Your task to perform on an android device: change your default location settings in chrome Image 0: 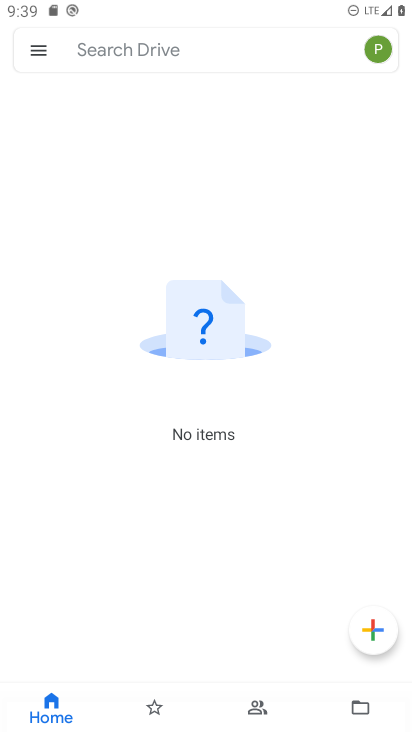
Step 0: press home button
Your task to perform on an android device: change your default location settings in chrome Image 1: 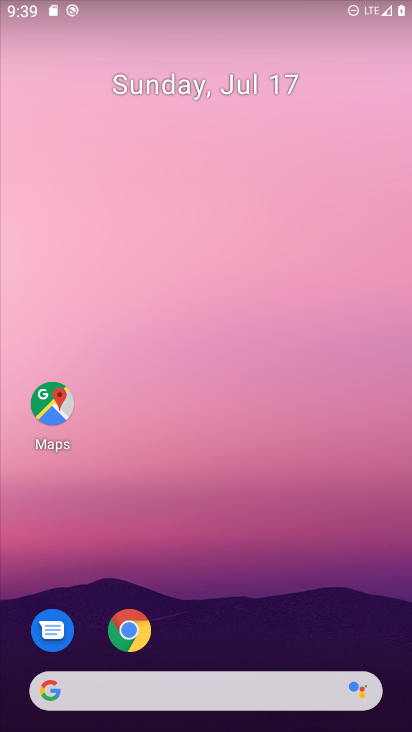
Step 1: drag from (220, 645) to (284, 243)
Your task to perform on an android device: change your default location settings in chrome Image 2: 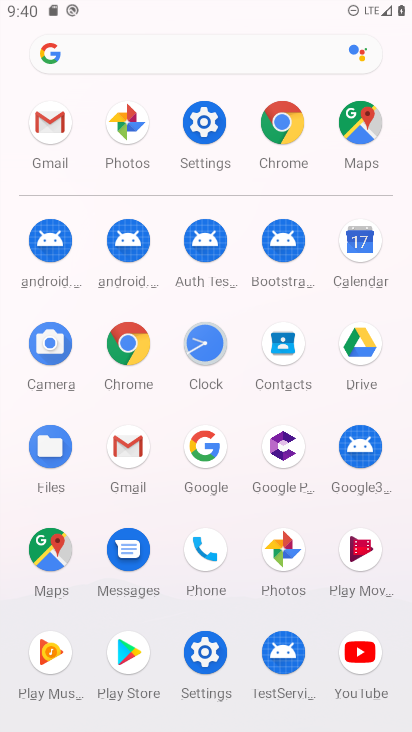
Step 2: click (288, 118)
Your task to perform on an android device: change your default location settings in chrome Image 3: 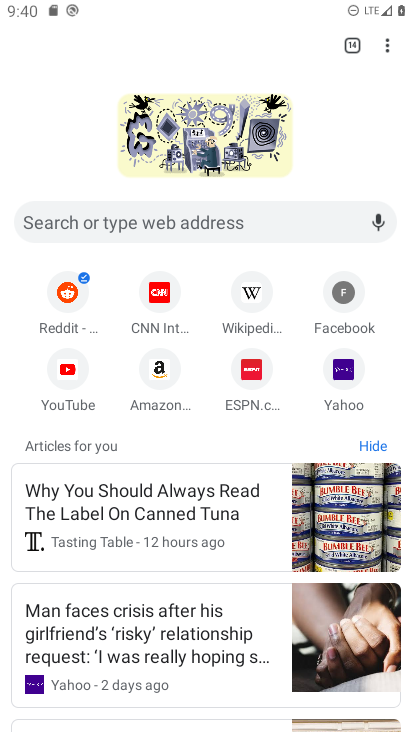
Step 3: click (401, 45)
Your task to perform on an android device: change your default location settings in chrome Image 4: 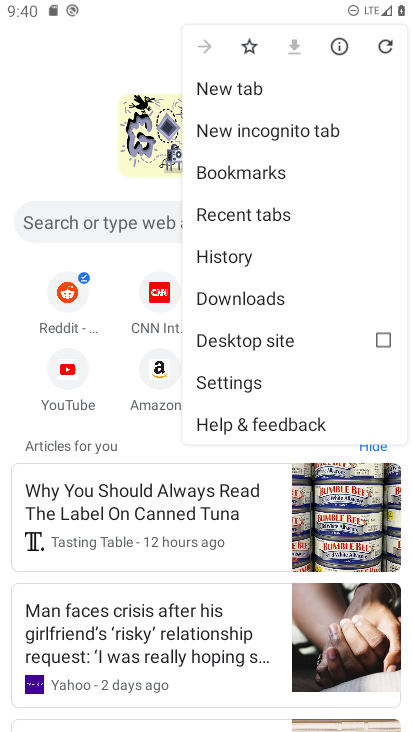
Step 4: click (264, 370)
Your task to perform on an android device: change your default location settings in chrome Image 5: 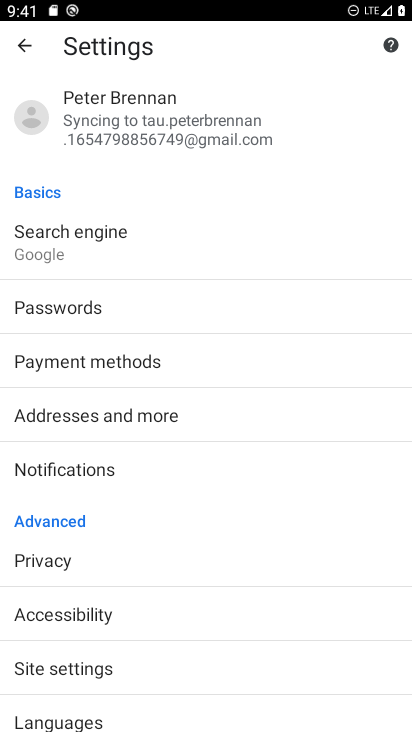
Step 5: drag from (153, 627) to (236, 307)
Your task to perform on an android device: change your default location settings in chrome Image 6: 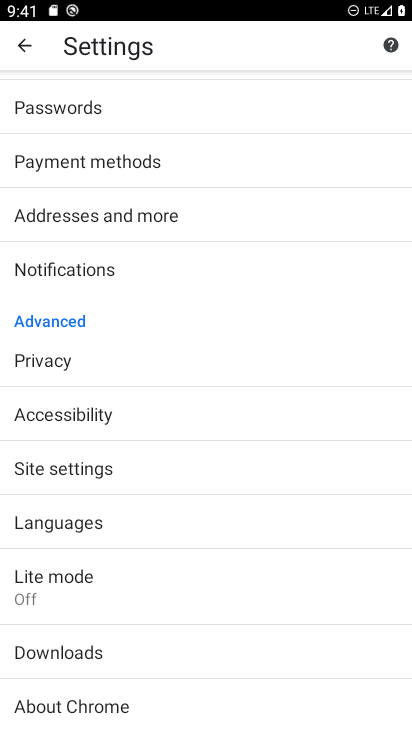
Step 6: click (120, 479)
Your task to perform on an android device: change your default location settings in chrome Image 7: 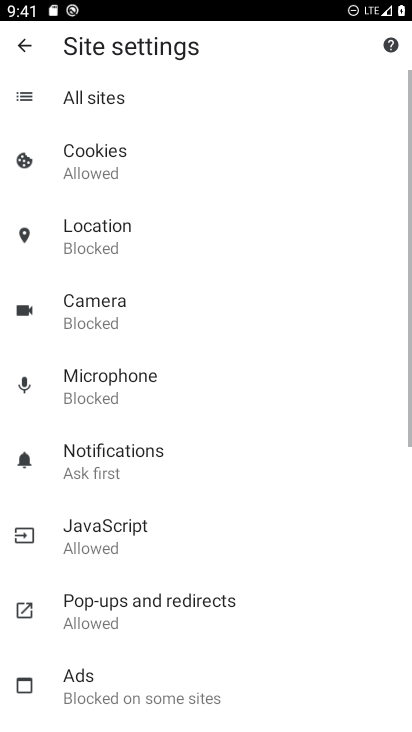
Step 7: click (138, 239)
Your task to perform on an android device: change your default location settings in chrome Image 8: 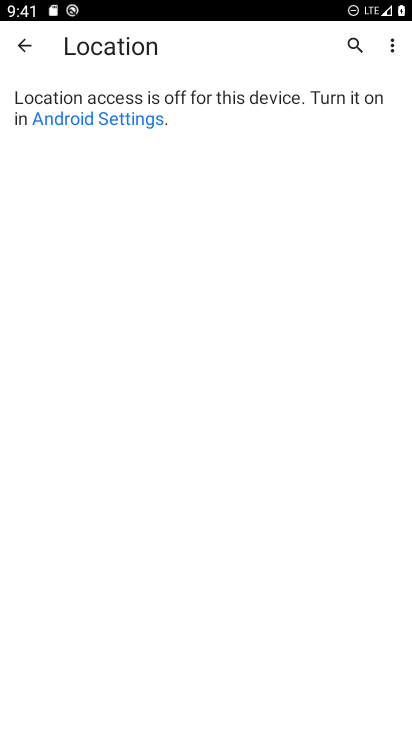
Step 8: task complete